Your task to perform on an android device: check out phone information Image 0: 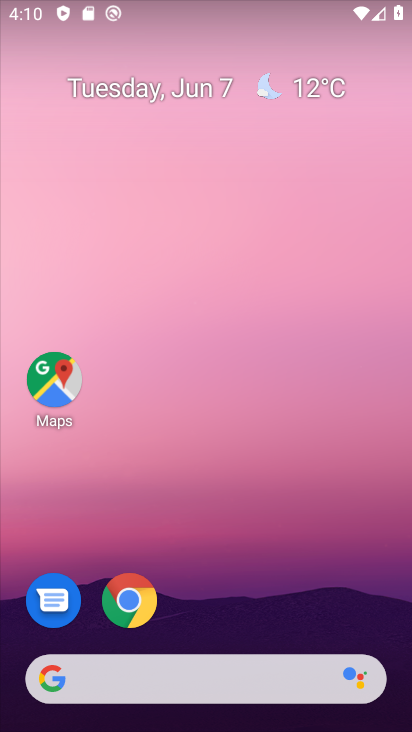
Step 0: drag from (192, 657) to (196, 178)
Your task to perform on an android device: check out phone information Image 1: 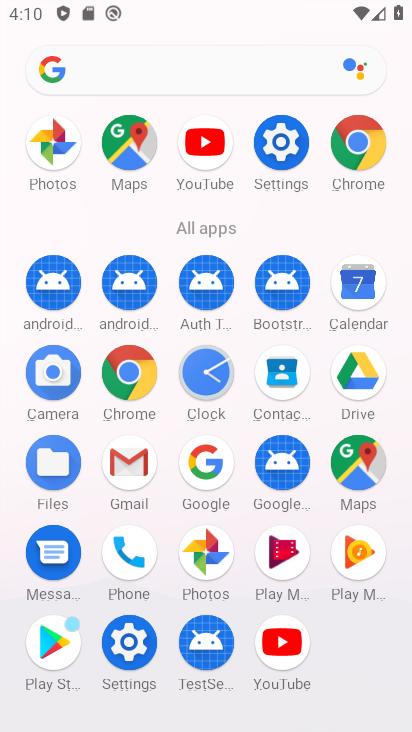
Step 1: click (132, 541)
Your task to perform on an android device: check out phone information Image 2: 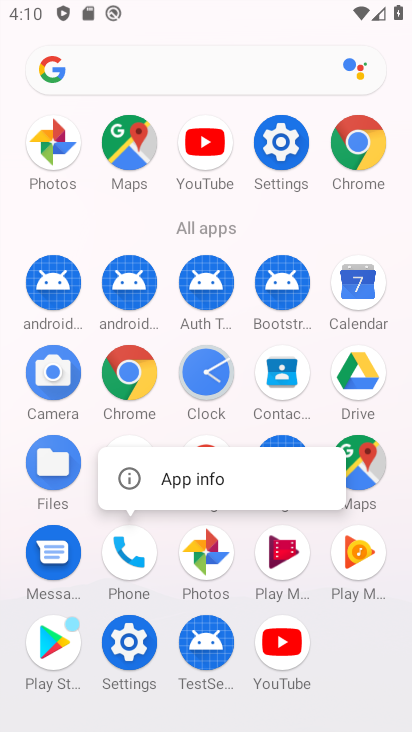
Step 2: click (203, 478)
Your task to perform on an android device: check out phone information Image 3: 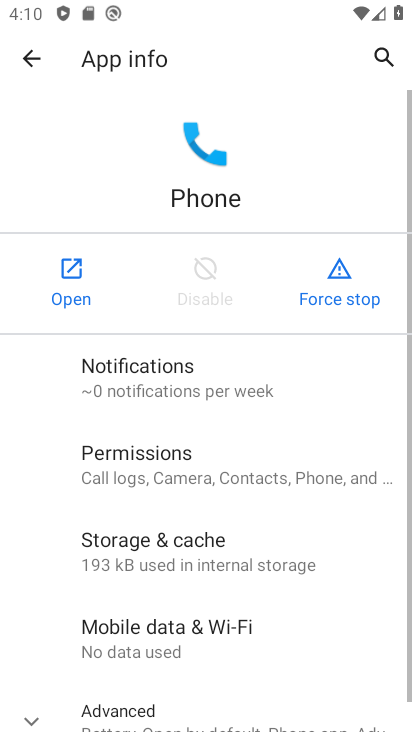
Step 3: drag from (143, 304) to (143, 137)
Your task to perform on an android device: check out phone information Image 4: 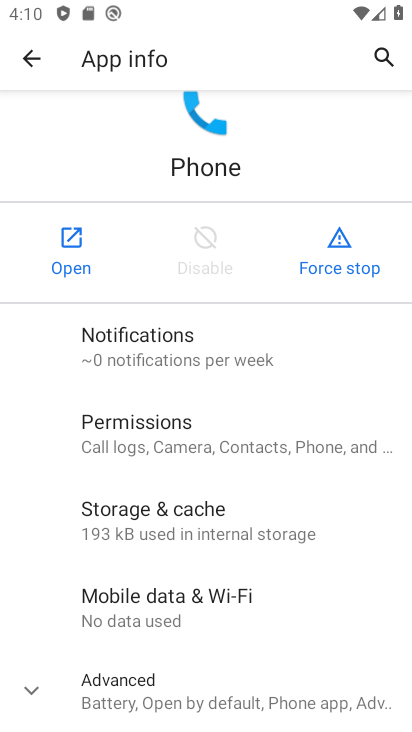
Step 4: click (133, 674)
Your task to perform on an android device: check out phone information Image 5: 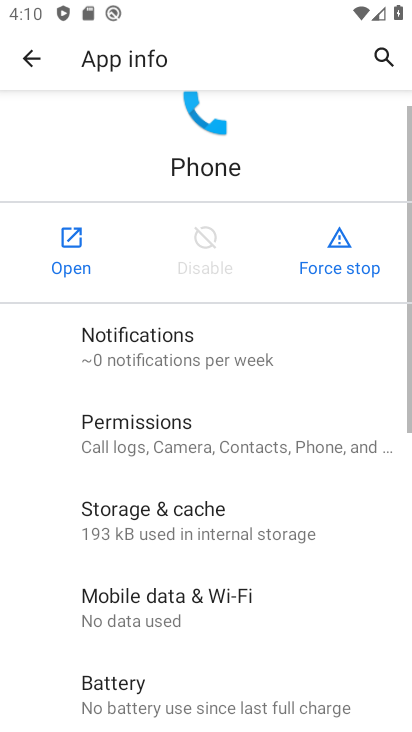
Step 5: task complete